Your task to perform on an android device: Go to Google maps Image 0: 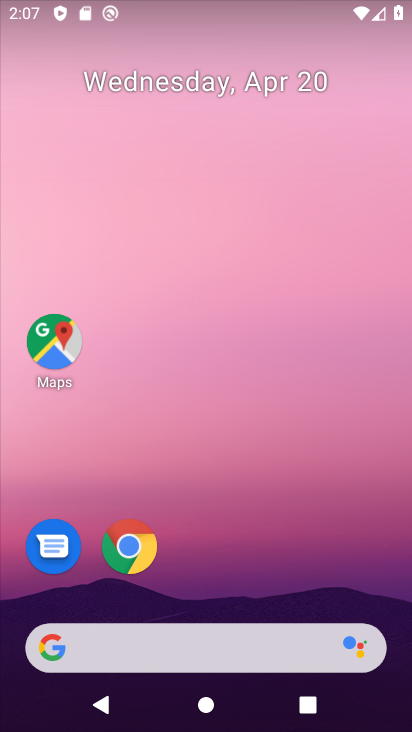
Step 0: click (56, 346)
Your task to perform on an android device: Go to Google maps Image 1: 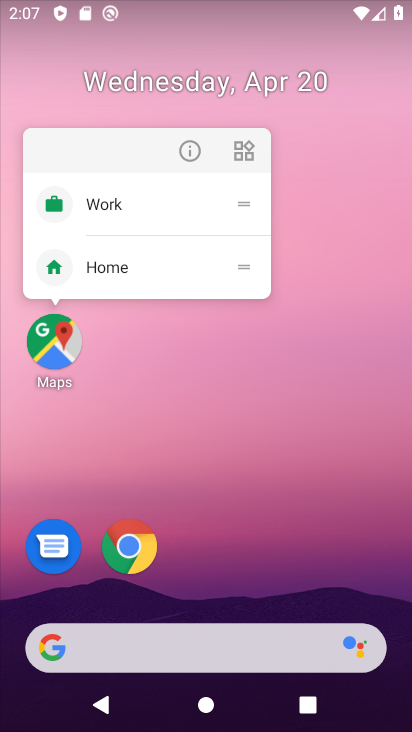
Step 1: click (57, 348)
Your task to perform on an android device: Go to Google maps Image 2: 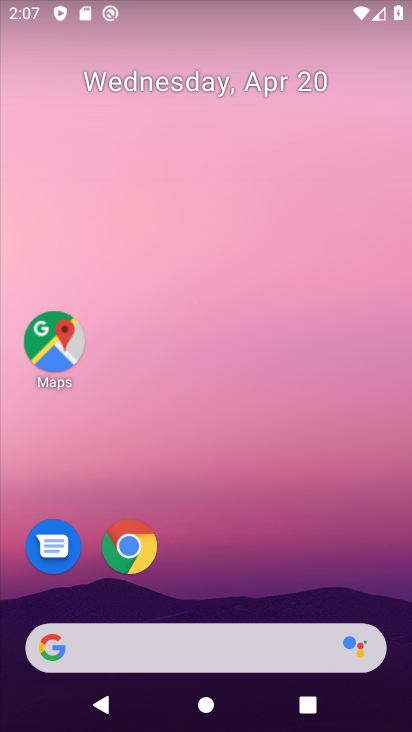
Step 2: click (57, 348)
Your task to perform on an android device: Go to Google maps Image 3: 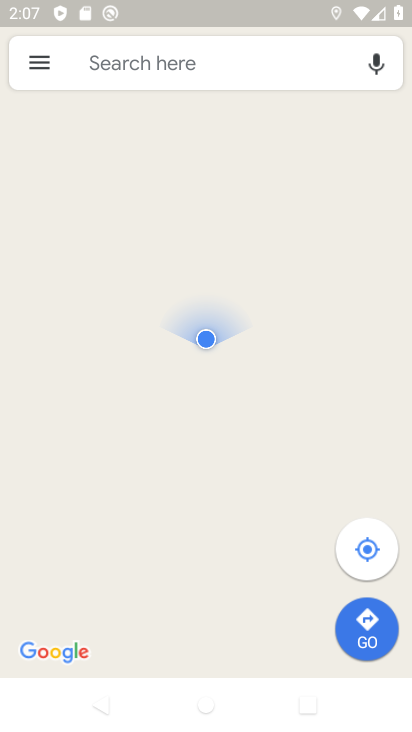
Step 3: task complete